Your task to perform on an android device: How much does the Vizio TV cost? Image 0: 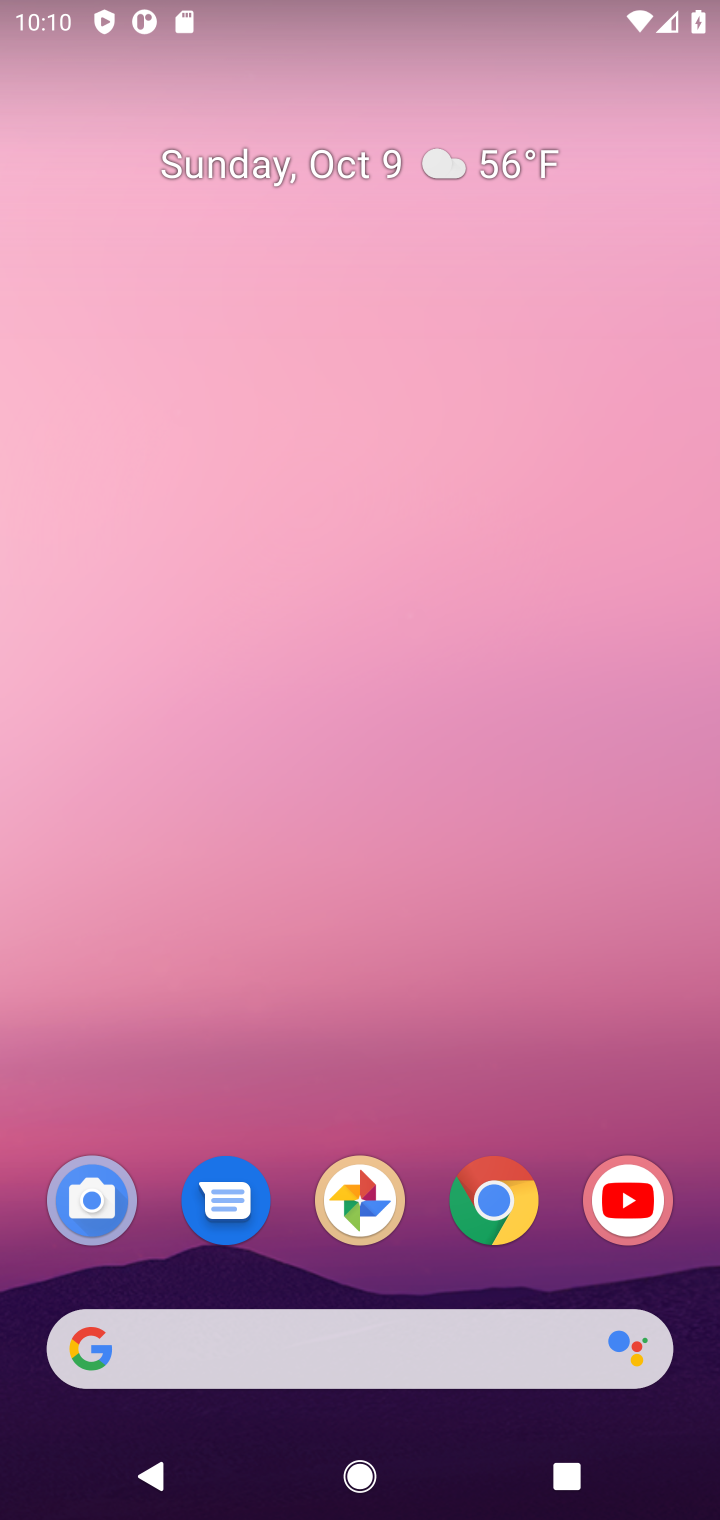
Step 0: click (489, 1224)
Your task to perform on an android device: How much does the Vizio TV cost? Image 1: 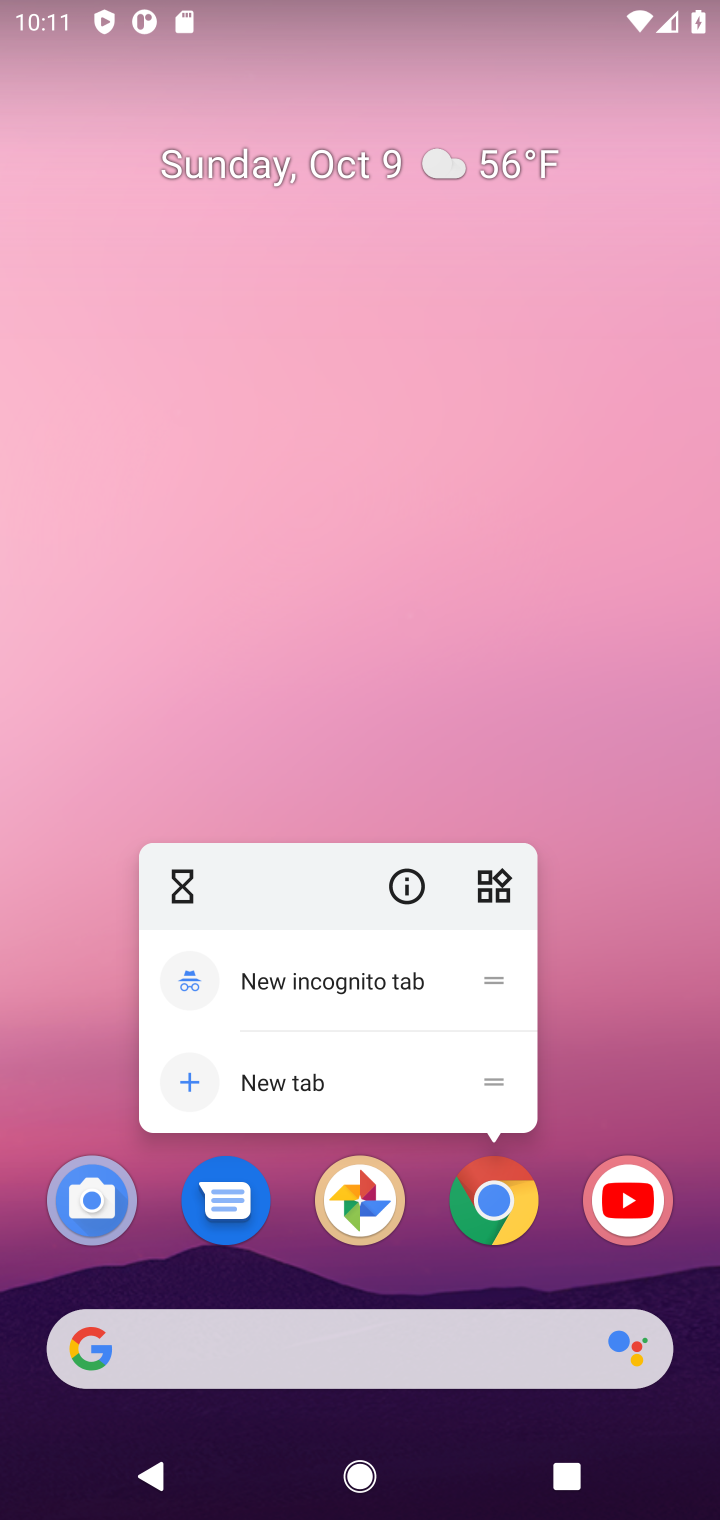
Step 1: click (489, 1224)
Your task to perform on an android device: How much does the Vizio TV cost? Image 2: 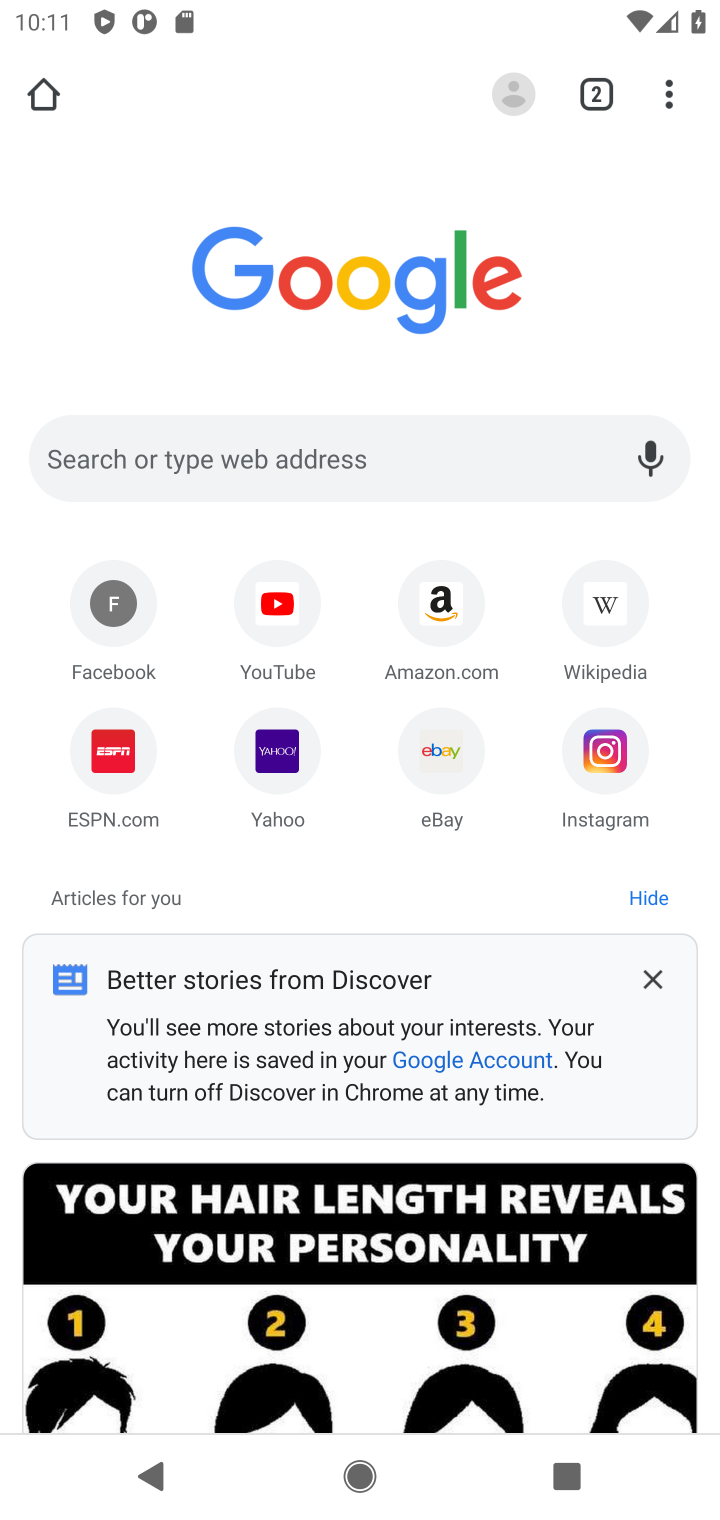
Step 2: click (431, 445)
Your task to perform on an android device: How much does the Vizio TV cost? Image 3: 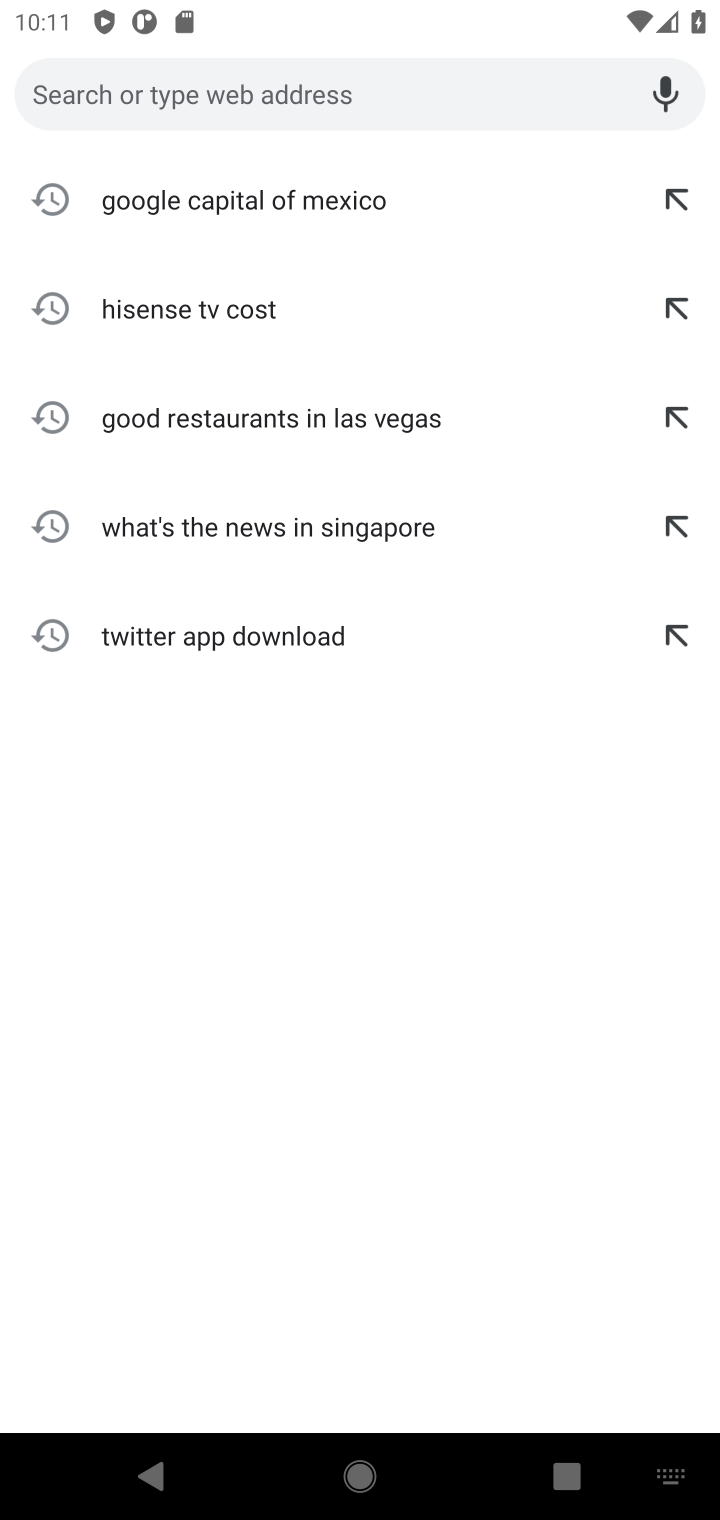
Step 3: type "How much does the Vizio TV cost?"
Your task to perform on an android device: How much does the Vizio TV cost? Image 4: 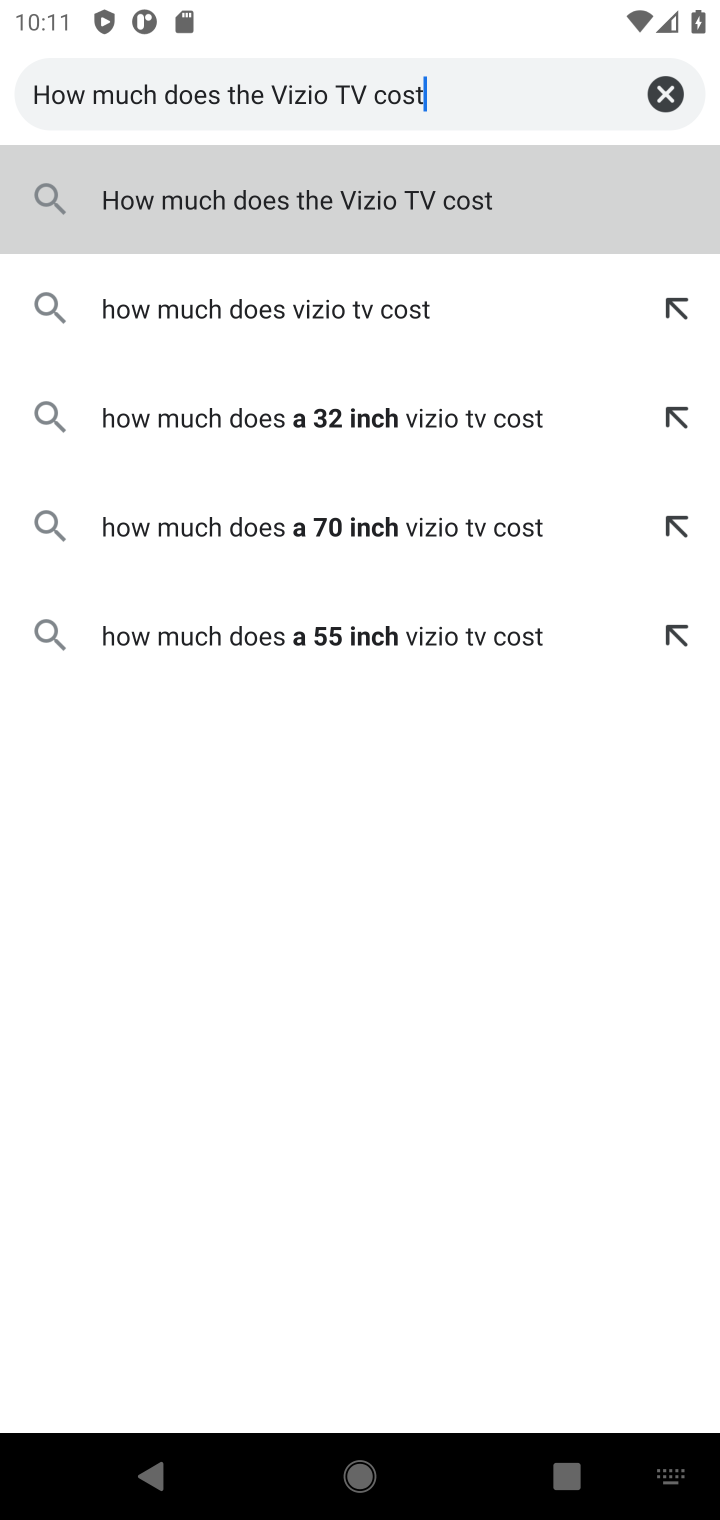
Step 4: click (540, 161)
Your task to perform on an android device: How much does the Vizio TV cost? Image 5: 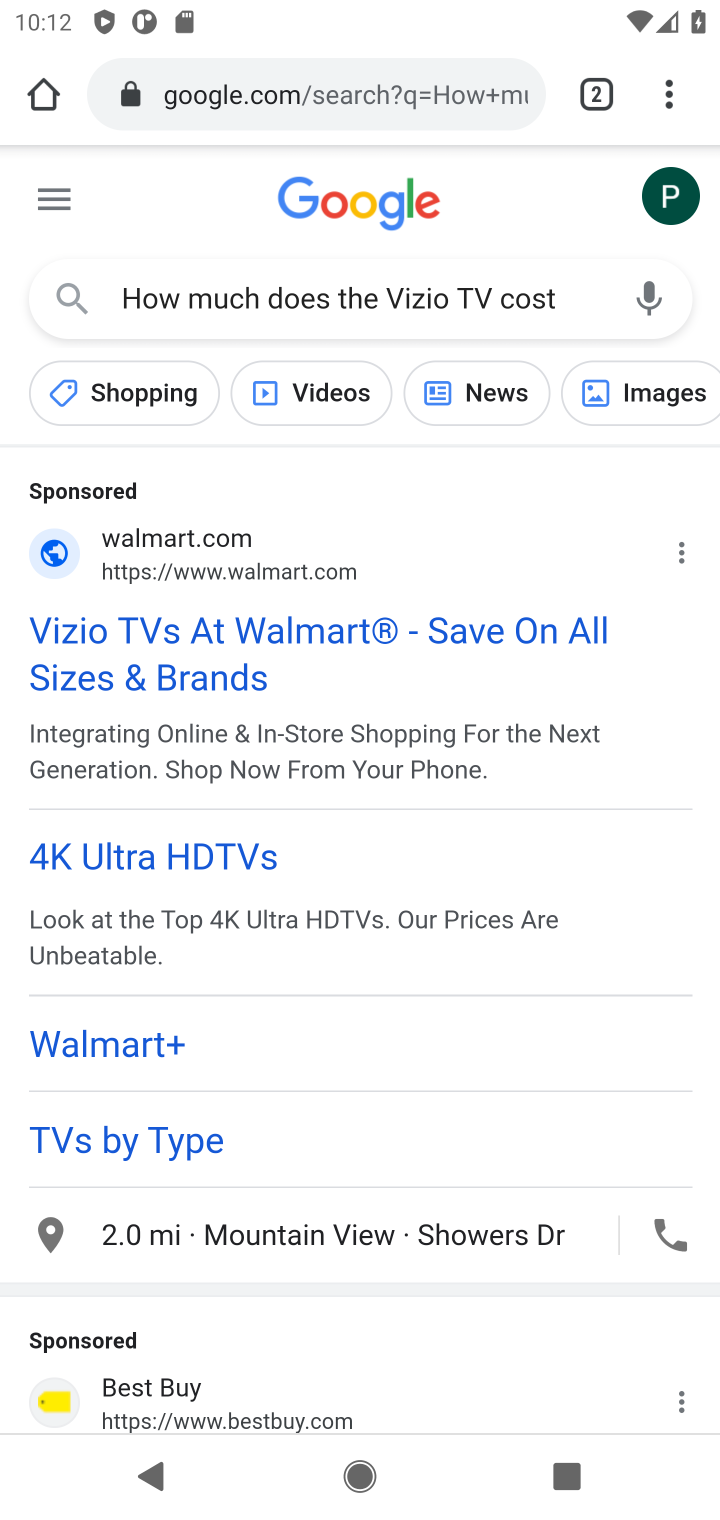
Step 5: task complete